Your task to perform on an android device: allow notifications from all sites in the chrome app Image 0: 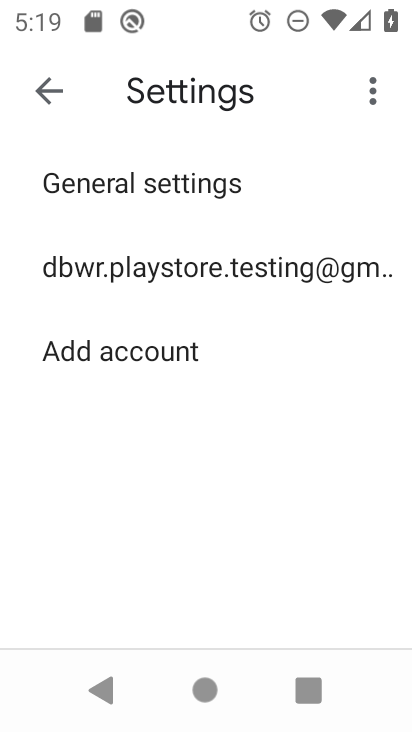
Step 0: press home button
Your task to perform on an android device: allow notifications from all sites in the chrome app Image 1: 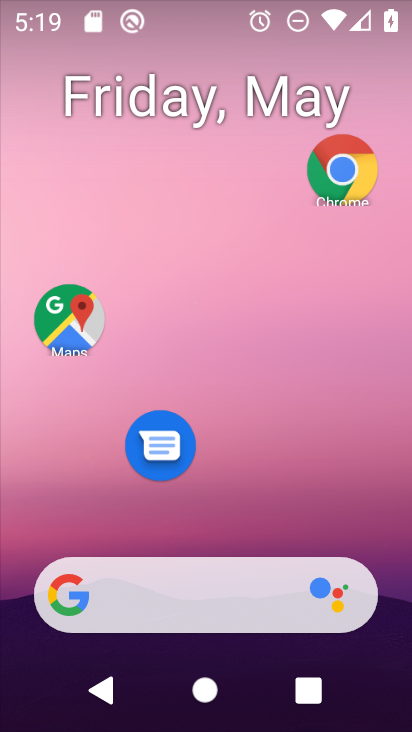
Step 1: drag from (223, 505) to (235, 72)
Your task to perform on an android device: allow notifications from all sites in the chrome app Image 2: 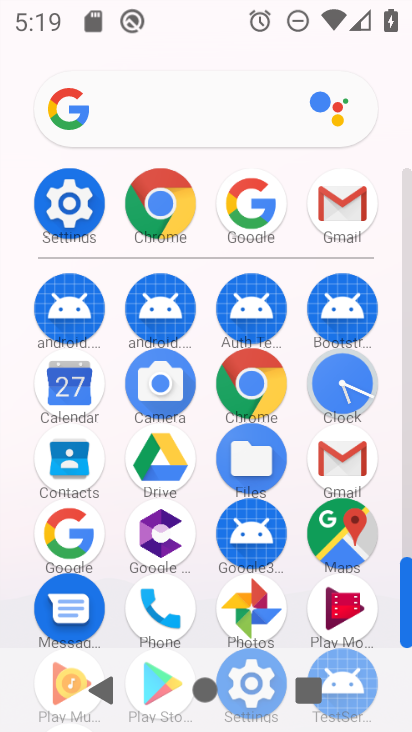
Step 2: click (177, 206)
Your task to perform on an android device: allow notifications from all sites in the chrome app Image 3: 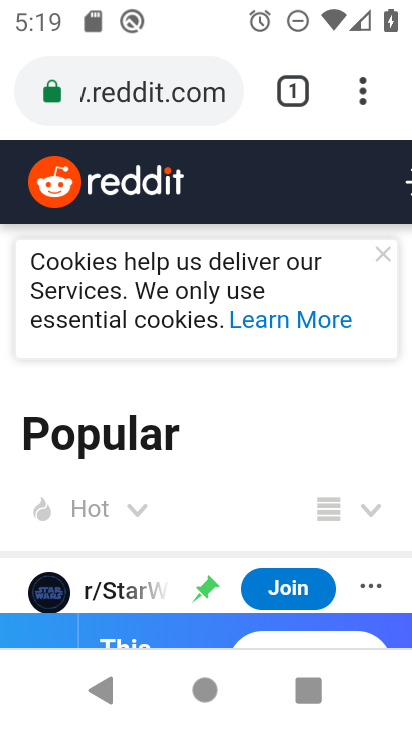
Step 3: click (368, 99)
Your task to perform on an android device: allow notifications from all sites in the chrome app Image 4: 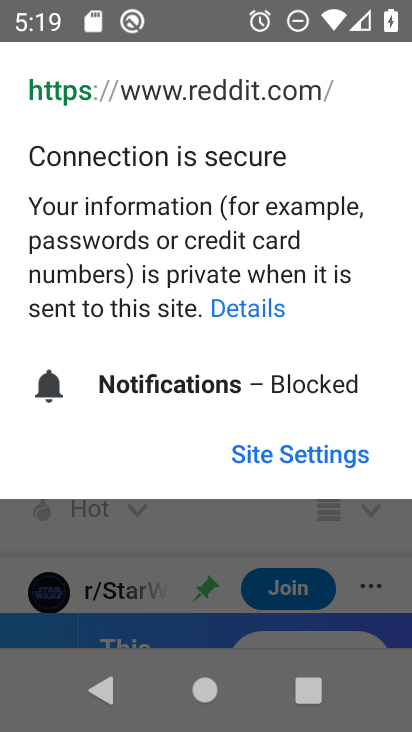
Step 4: click (191, 518)
Your task to perform on an android device: allow notifications from all sites in the chrome app Image 5: 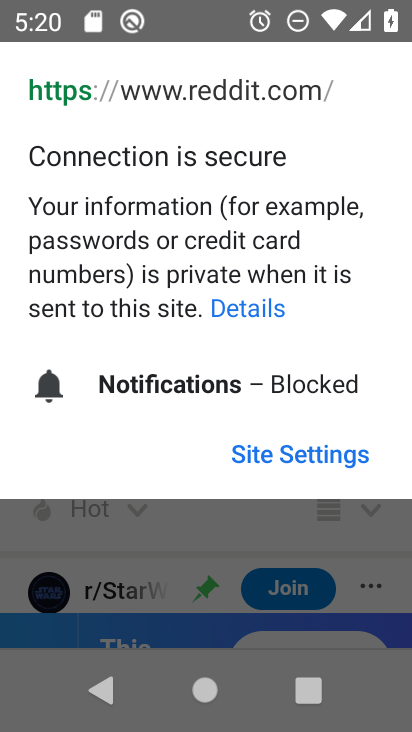
Step 5: click (221, 509)
Your task to perform on an android device: allow notifications from all sites in the chrome app Image 6: 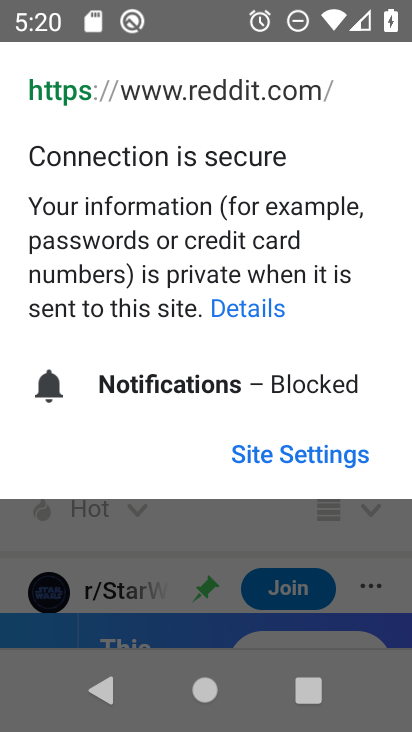
Step 6: press back button
Your task to perform on an android device: allow notifications from all sites in the chrome app Image 7: 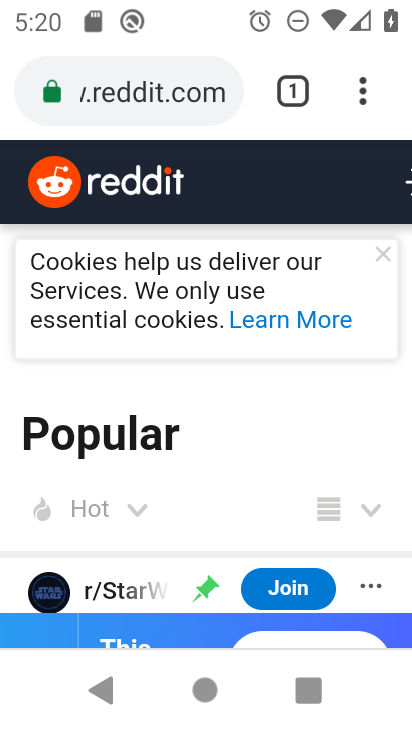
Step 7: click (233, 523)
Your task to perform on an android device: allow notifications from all sites in the chrome app Image 8: 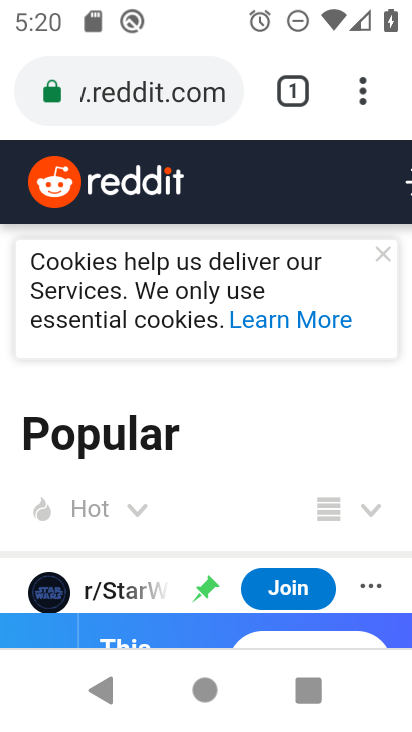
Step 8: click (360, 96)
Your task to perform on an android device: allow notifications from all sites in the chrome app Image 9: 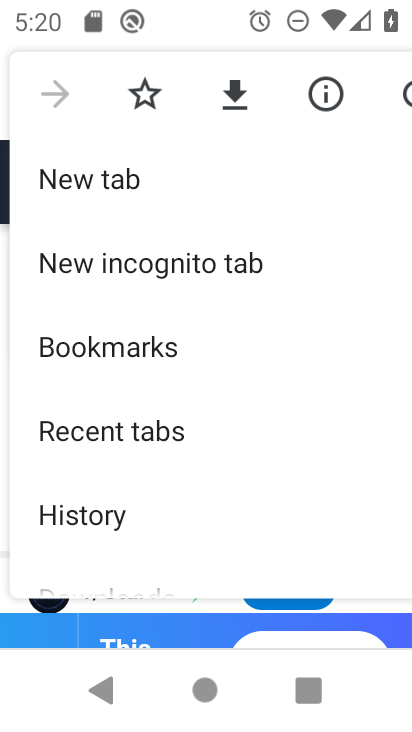
Step 9: drag from (151, 490) to (161, 96)
Your task to perform on an android device: allow notifications from all sites in the chrome app Image 10: 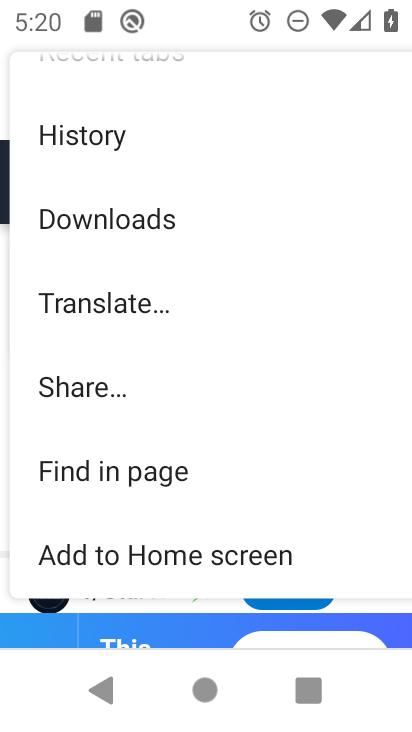
Step 10: drag from (162, 493) to (184, 99)
Your task to perform on an android device: allow notifications from all sites in the chrome app Image 11: 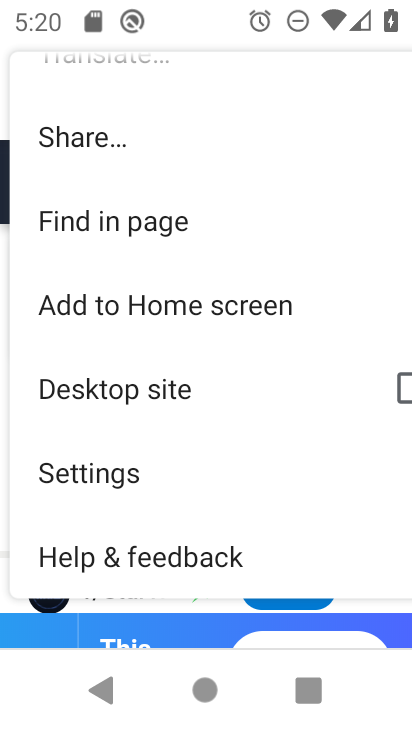
Step 11: click (106, 476)
Your task to perform on an android device: allow notifications from all sites in the chrome app Image 12: 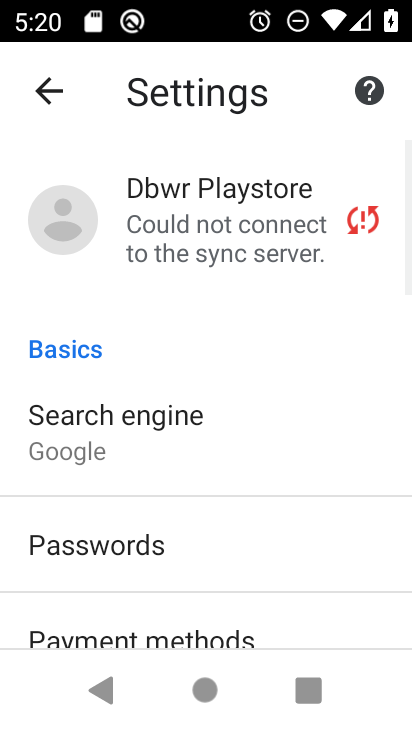
Step 12: drag from (121, 487) to (161, 225)
Your task to perform on an android device: allow notifications from all sites in the chrome app Image 13: 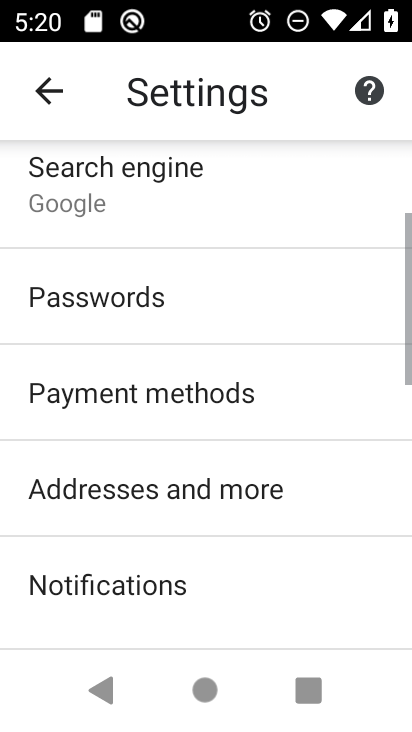
Step 13: drag from (170, 532) to (212, 178)
Your task to perform on an android device: allow notifications from all sites in the chrome app Image 14: 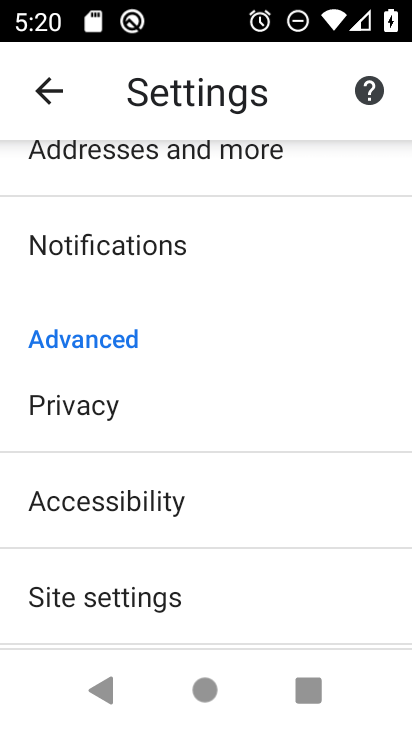
Step 14: drag from (105, 594) to (123, 256)
Your task to perform on an android device: allow notifications from all sites in the chrome app Image 15: 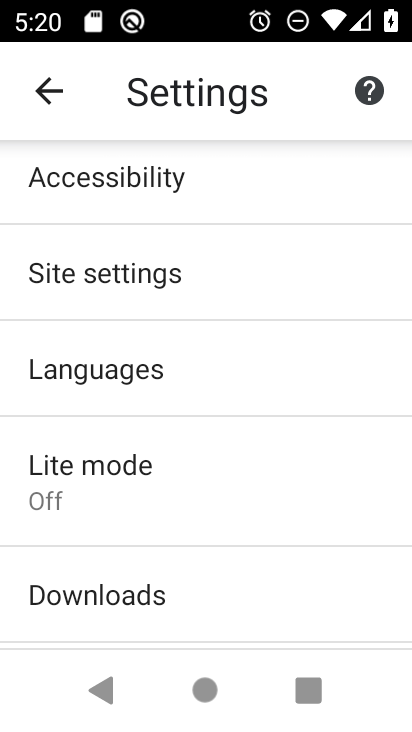
Step 15: click (135, 269)
Your task to perform on an android device: allow notifications from all sites in the chrome app Image 16: 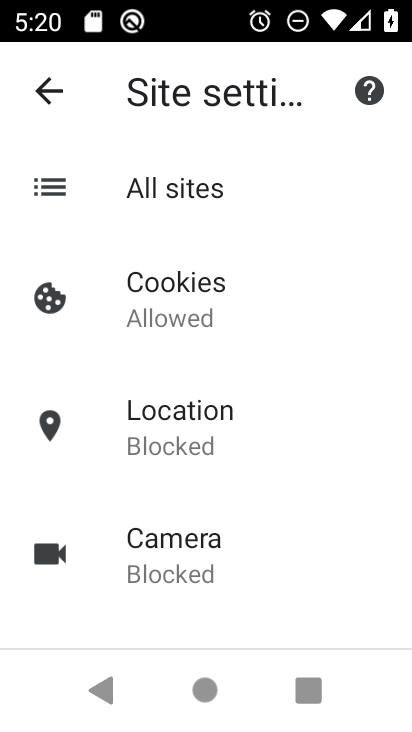
Step 16: click (170, 194)
Your task to perform on an android device: allow notifications from all sites in the chrome app Image 17: 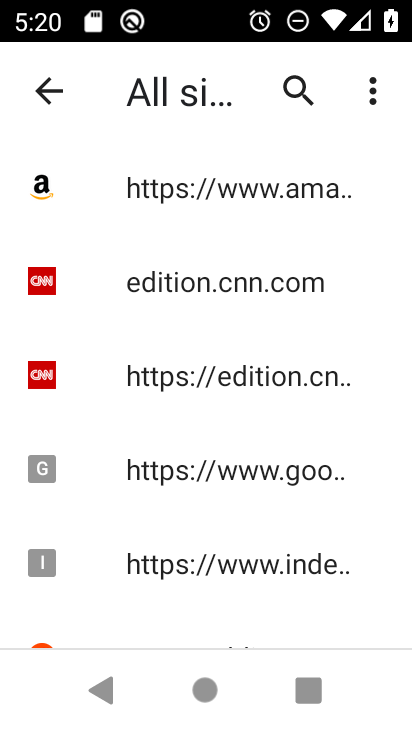
Step 17: click (201, 472)
Your task to perform on an android device: allow notifications from all sites in the chrome app Image 18: 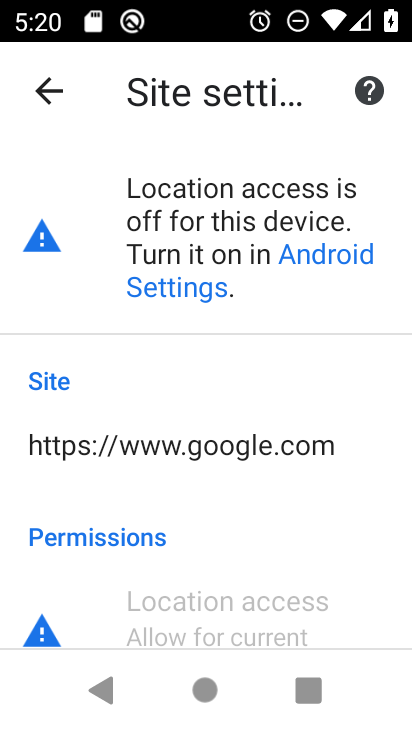
Step 18: click (203, 443)
Your task to perform on an android device: allow notifications from all sites in the chrome app Image 19: 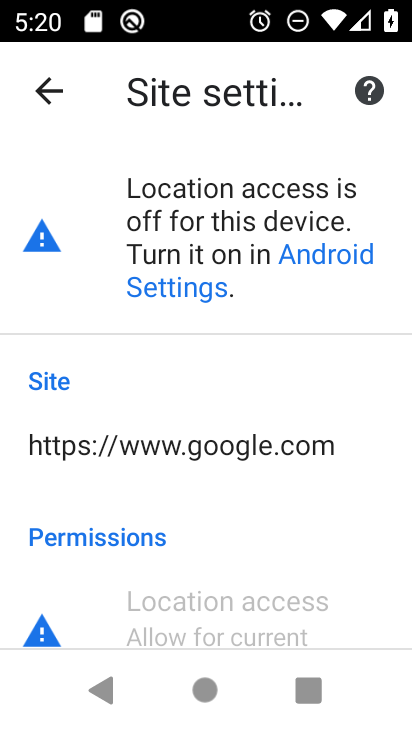
Step 19: drag from (214, 534) to (230, 210)
Your task to perform on an android device: allow notifications from all sites in the chrome app Image 20: 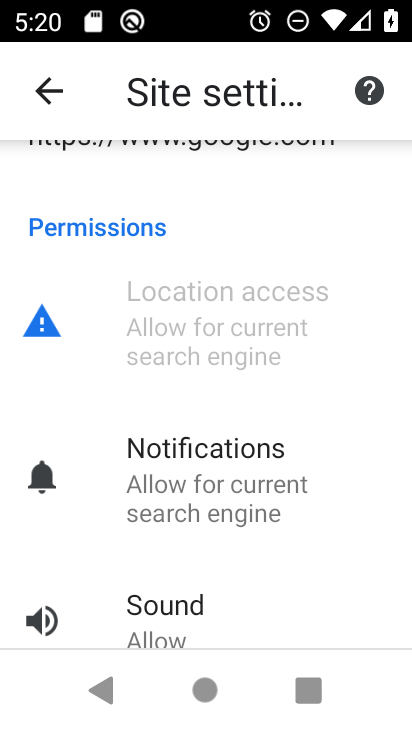
Step 20: click (204, 465)
Your task to perform on an android device: allow notifications from all sites in the chrome app Image 21: 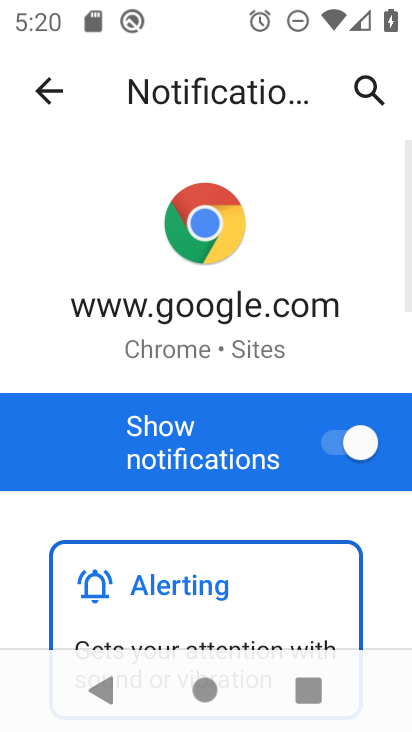
Step 21: click (326, 453)
Your task to perform on an android device: allow notifications from all sites in the chrome app Image 22: 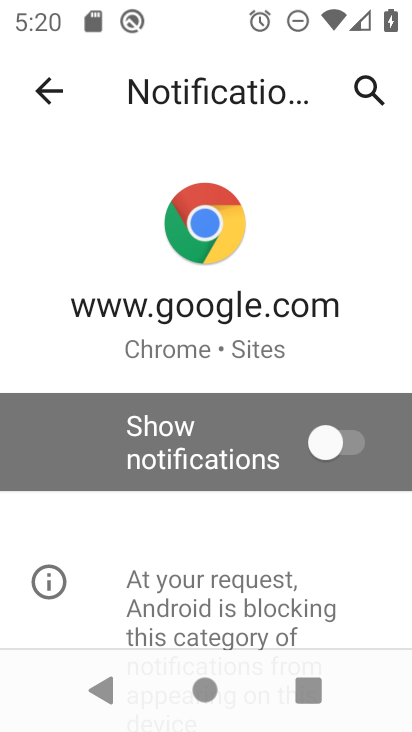
Step 22: click (364, 444)
Your task to perform on an android device: allow notifications from all sites in the chrome app Image 23: 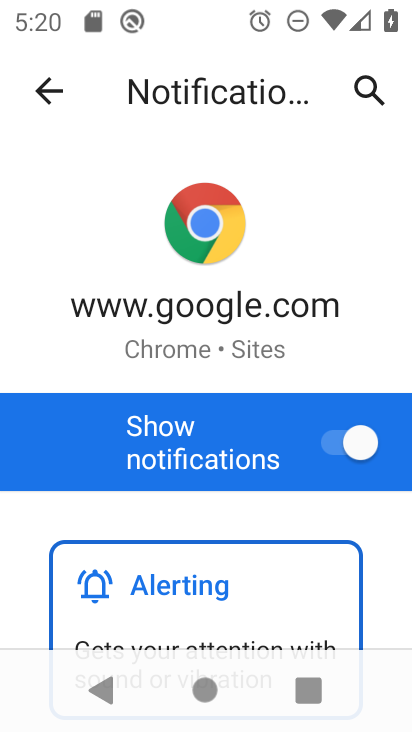
Step 23: task complete